Your task to perform on an android device: Go to sound settings Image 0: 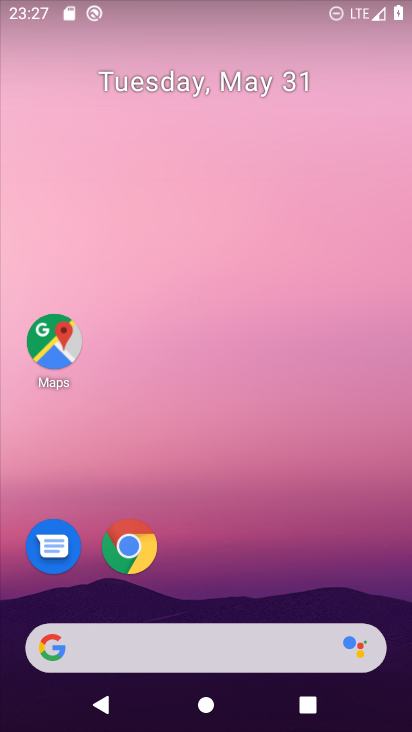
Step 0: drag from (378, 596) to (329, 186)
Your task to perform on an android device: Go to sound settings Image 1: 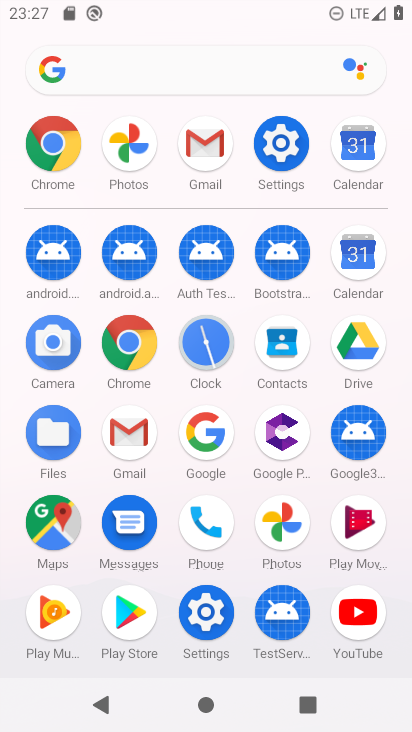
Step 1: click (291, 158)
Your task to perform on an android device: Go to sound settings Image 2: 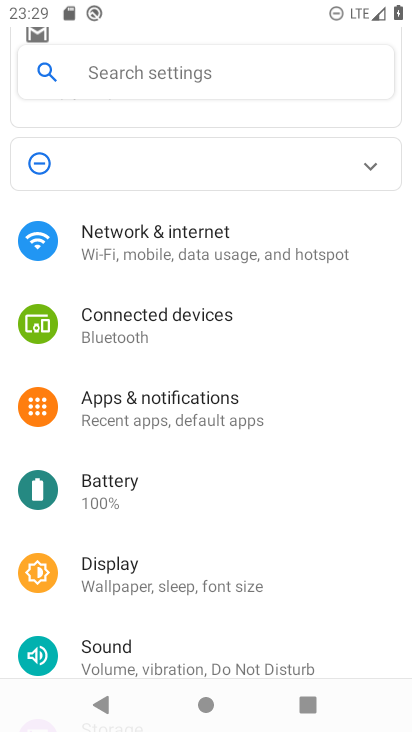
Step 2: drag from (331, 640) to (347, 345)
Your task to perform on an android device: Go to sound settings Image 3: 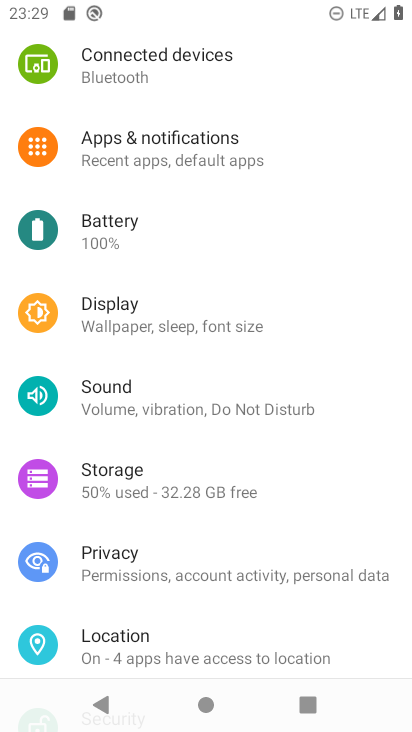
Step 3: click (122, 396)
Your task to perform on an android device: Go to sound settings Image 4: 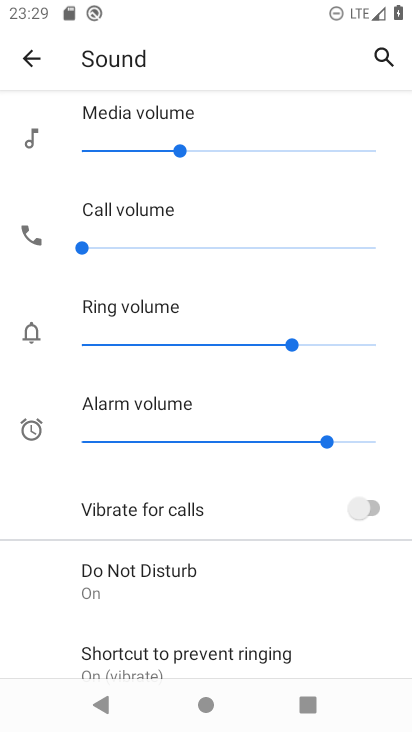
Step 4: task complete